Your task to perform on an android device: Search for pizza restaurants on Maps Image 0: 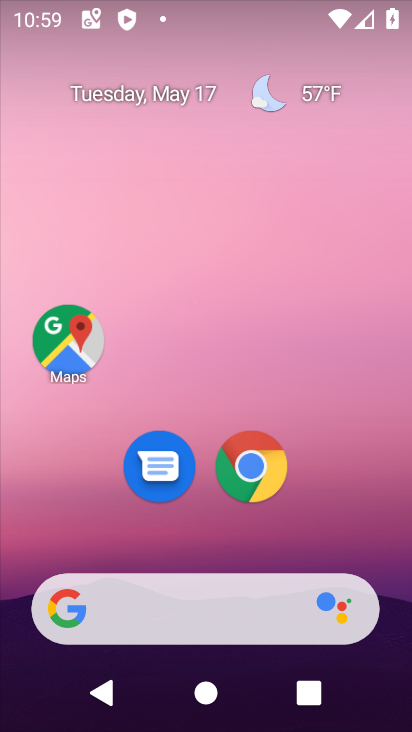
Step 0: click (78, 328)
Your task to perform on an android device: Search for pizza restaurants on Maps Image 1: 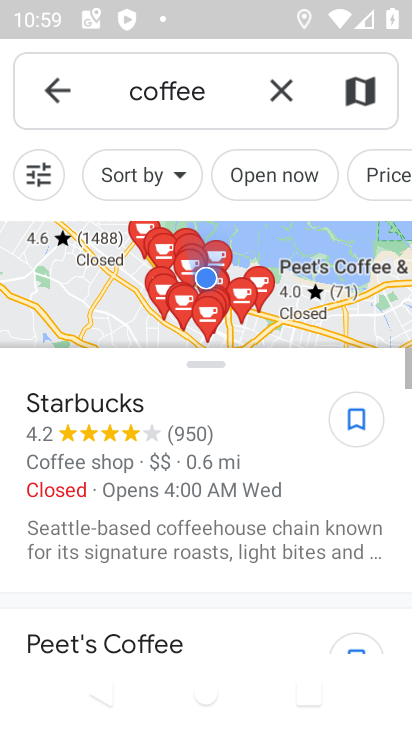
Step 1: click (286, 102)
Your task to perform on an android device: Search for pizza restaurants on Maps Image 2: 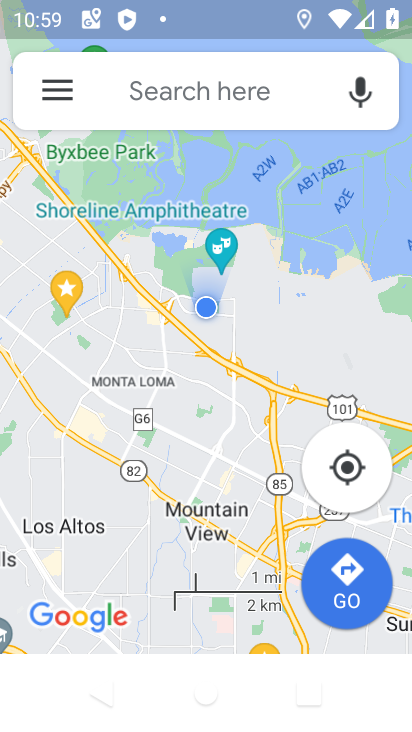
Step 2: click (171, 98)
Your task to perform on an android device: Search for pizza restaurants on Maps Image 3: 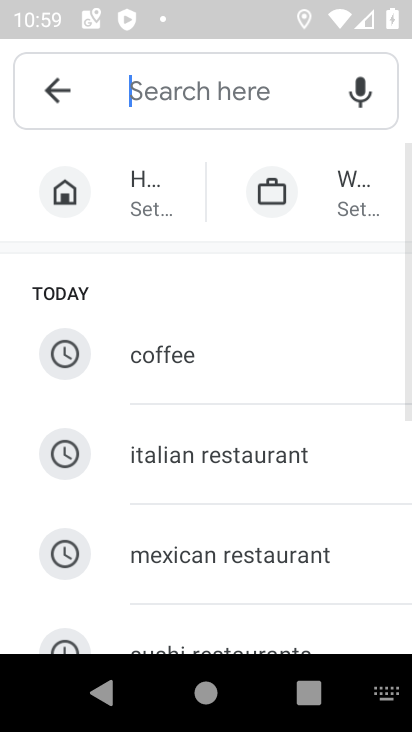
Step 3: drag from (248, 573) to (203, 334)
Your task to perform on an android device: Search for pizza restaurants on Maps Image 4: 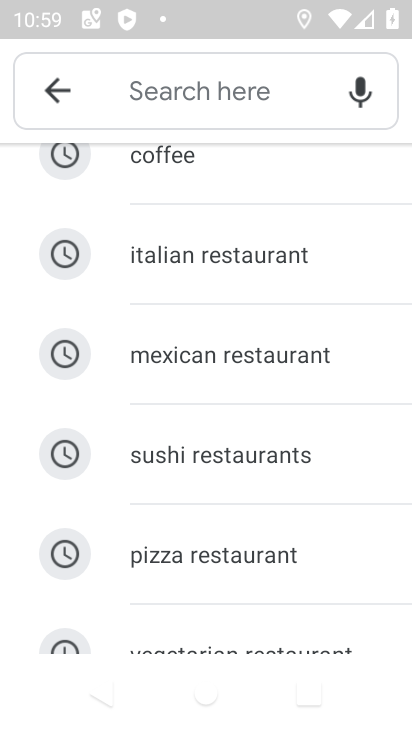
Step 4: click (218, 543)
Your task to perform on an android device: Search for pizza restaurants on Maps Image 5: 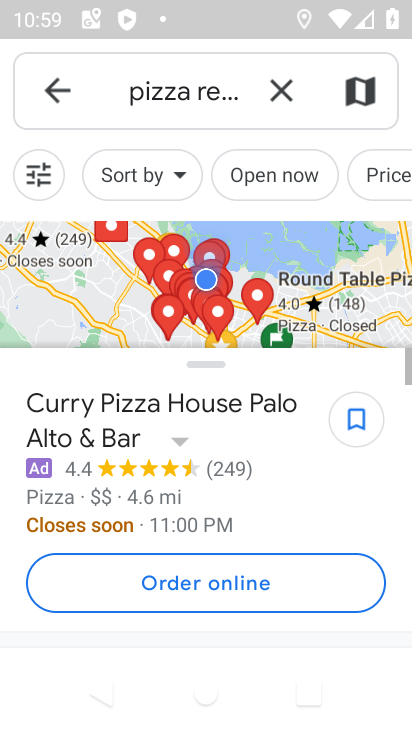
Step 5: task complete